Your task to perform on an android device: Go to battery settings Image 0: 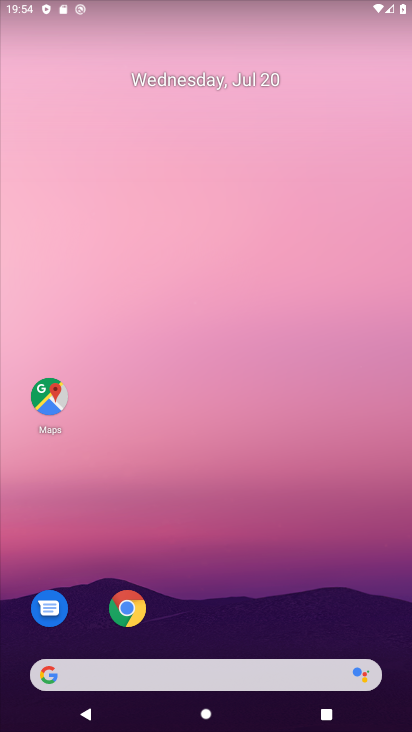
Step 0: drag from (297, 517) to (338, 36)
Your task to perform on an android device: Go to battery settings Image 1: 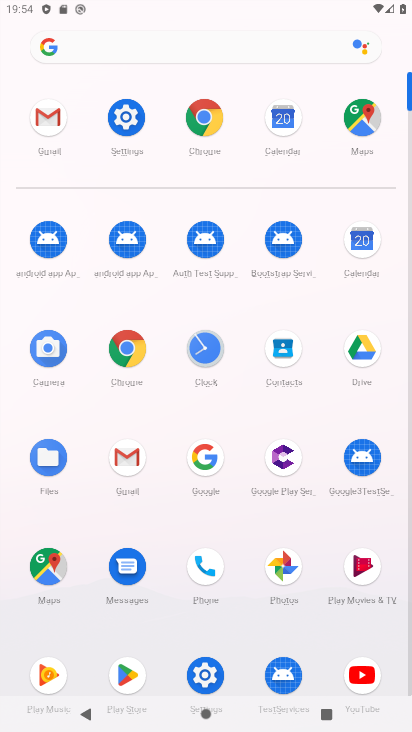
Step 1: click (134, 108)
Your task to perform on an android device: Go to battery settings Image 2: 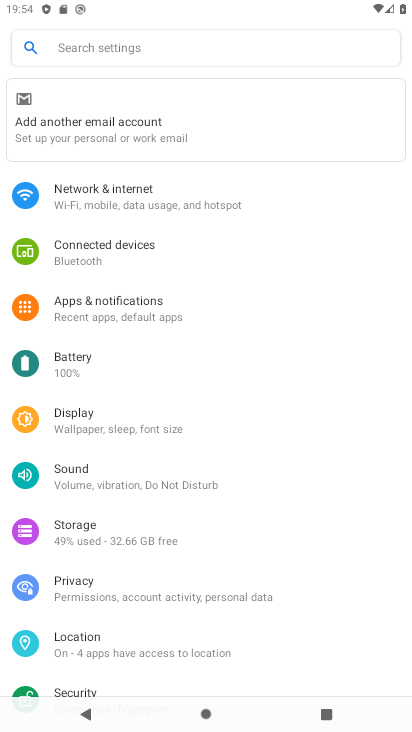
Step 2: click (88, 368)
Your task to perform on an android device: Go to battery settings Image 3: 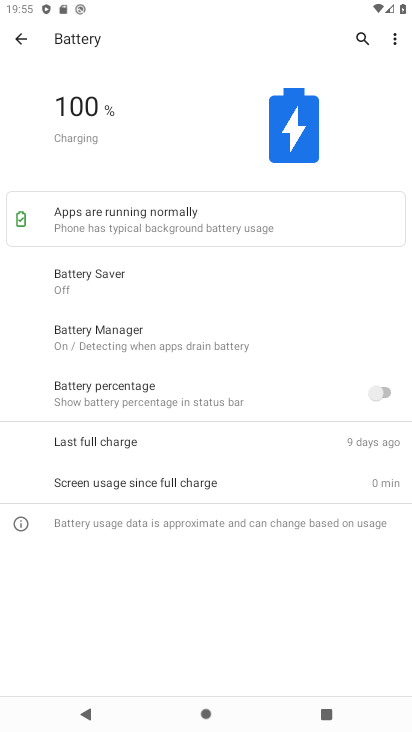
Step 3: task complete